Your task to perform on an android device: toggle improve location accuracy Image 0: 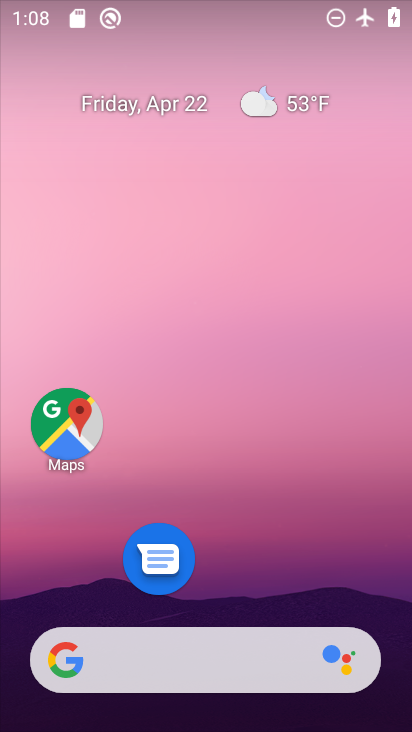
Step 0: drag from (208, 724) to (207, 231)
Your task to perform on an android device: toggle improve location accuracy Image 1: 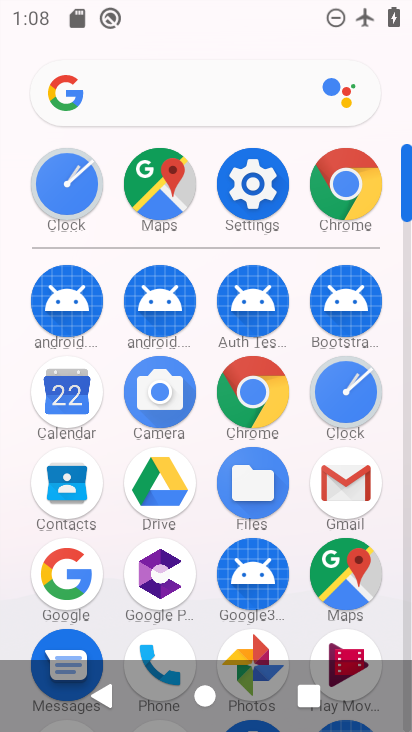
Step 1: click (249, 188)
Your task to perform on an android device: toggle improve location accuracy Image 2: 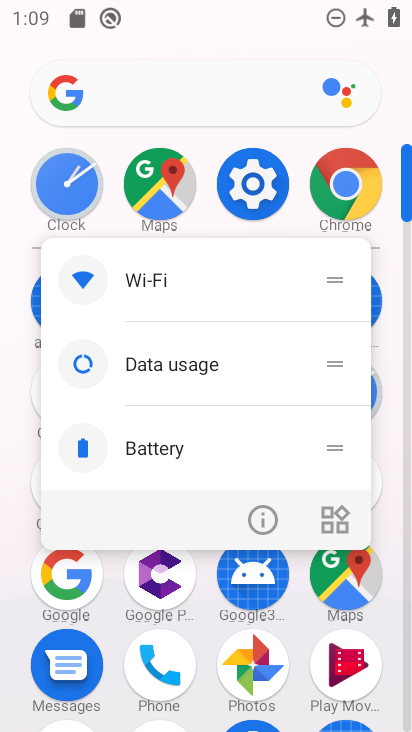
Step 2: click (241, 181)
Your task to perform on an android device: toggle improve location accuracy Image 3: 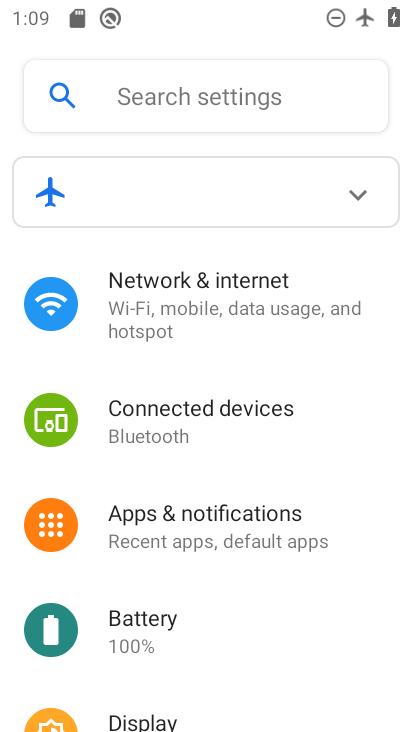
Step 3: drag from (187, 651) to (177, 223)
Your task to perform on an android device: toggle improve location accuracy Image 4: 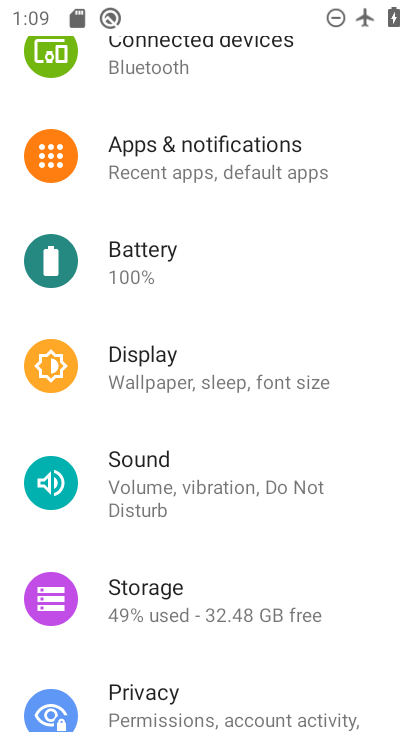
Step 4: drag from (210, 665) to (185, 198)
Your task to perform on an android device: toggle improve location accuracy Image 5: 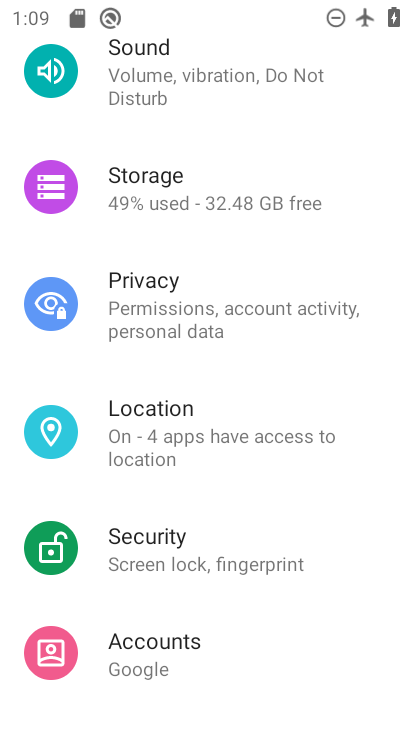
Step 5: click (152, 430)
Your task to perform on an android device: toggle improve location accuracy Image 6: 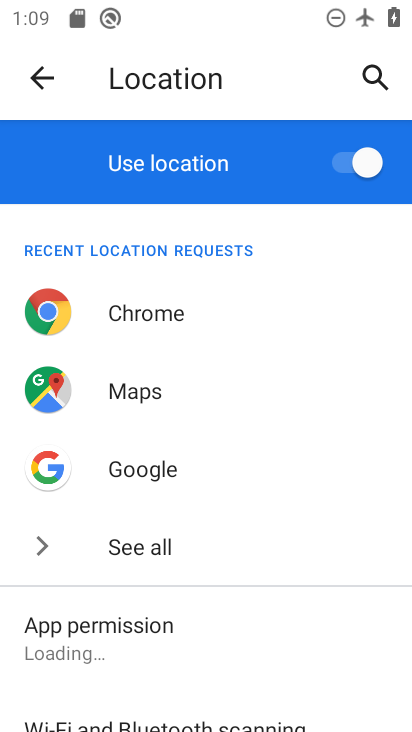
Step 6: drag from (218, 698) to (212, 267)
Your task to perform on an android device: toggle improve location accuracy Image 7: 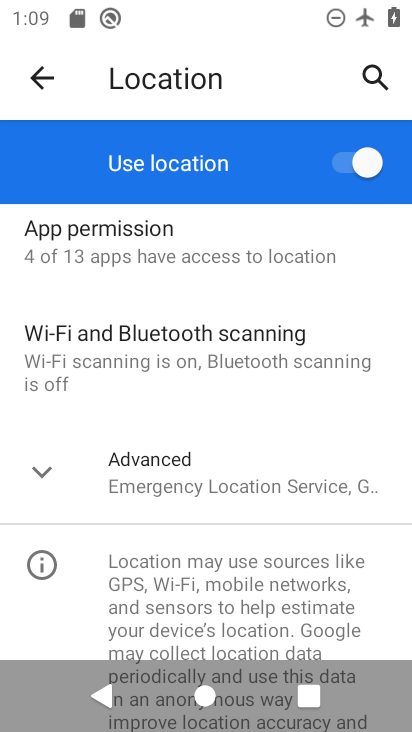
Step 7: click (154, 476)
Your task to perform on an android device: toggle improve location accuracy Image 8: 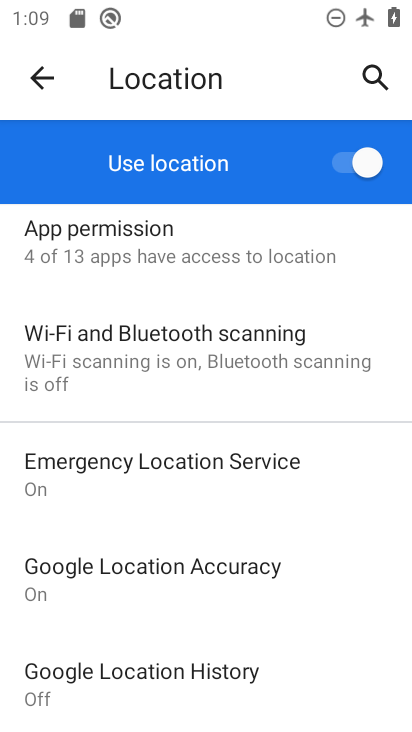
Step 8: click (199, 566)
Your task to perform on an android device: toggle improve location accuracy Image 9: 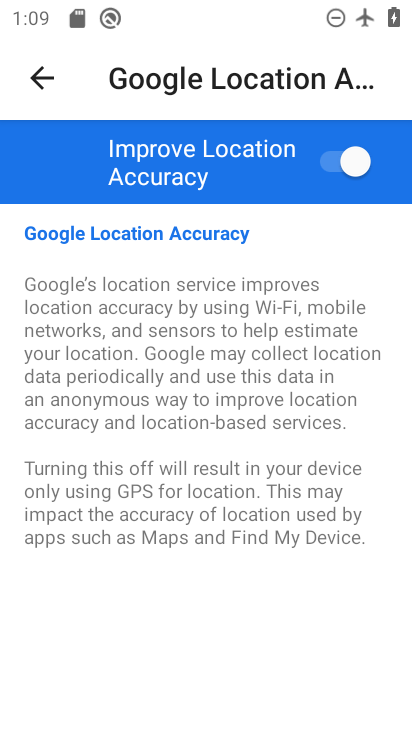
Step 9: task complete